Your task to perform on an android device: Go to Yahoo.com Image 0: 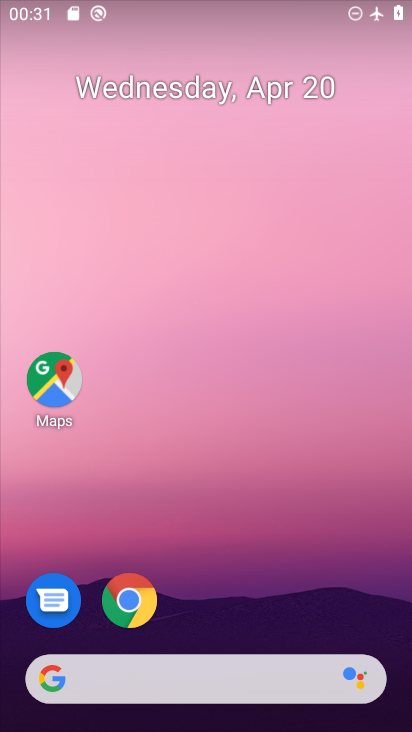
Step 0: drag from (349, 540) to (351, 121)
Your task to perform on an android device: Go to Yahoo.com Image 1: 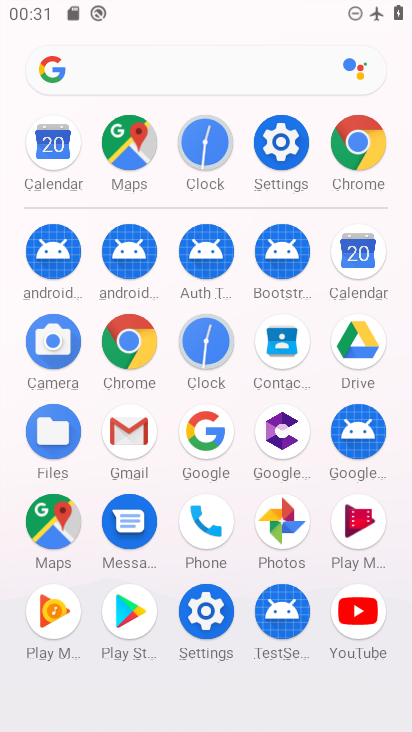
Step 1: click (118, 356)
Your task to perform on an android device: Go to Yahoo.com Image 2: 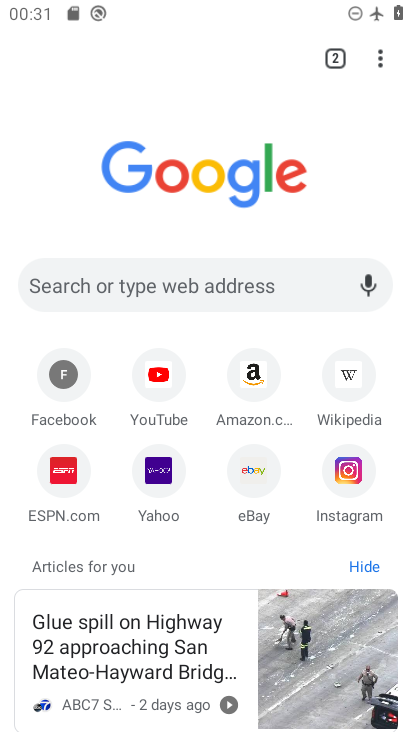
Step 2: click (175, 279)
Your task to perform on an android device: Go to Yahoo.com Image 3: 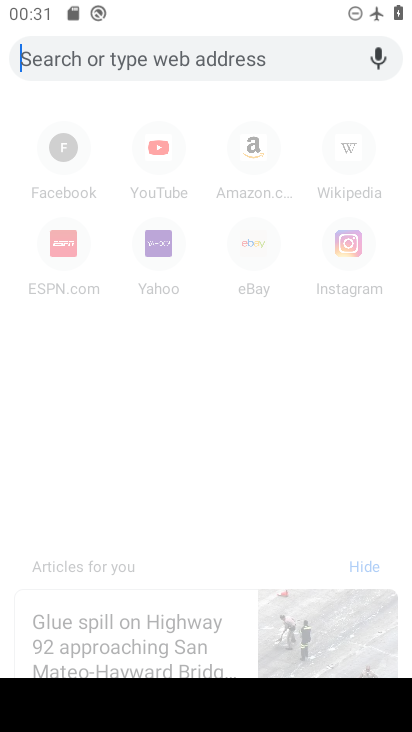
Step 3: type "yahoo.com"
Your task to perform on an android device: Go to Yahoo.com Image 4: 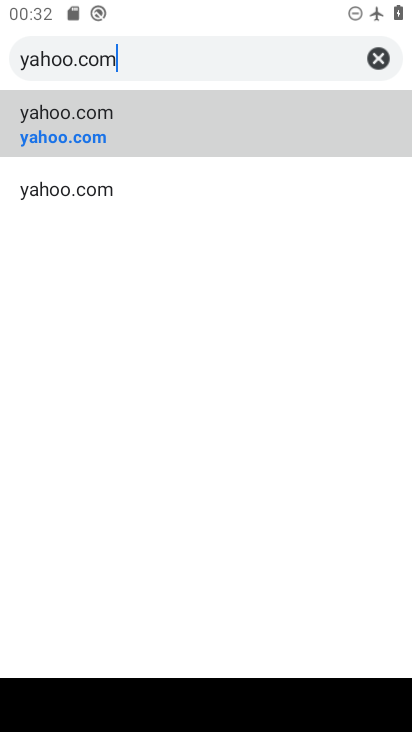
Step 4: click (79, 146)
Your task to perform on an android device: Go to Yahoo.com Image 5: 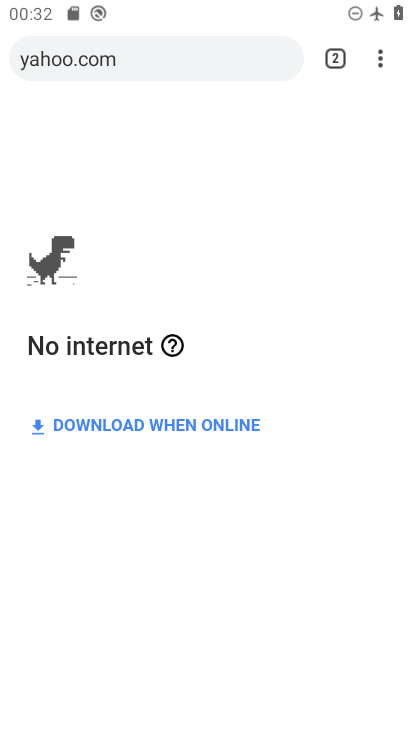
Step 5: task complete